Your task to perform on an android device: turn on sleep mode Image 0: 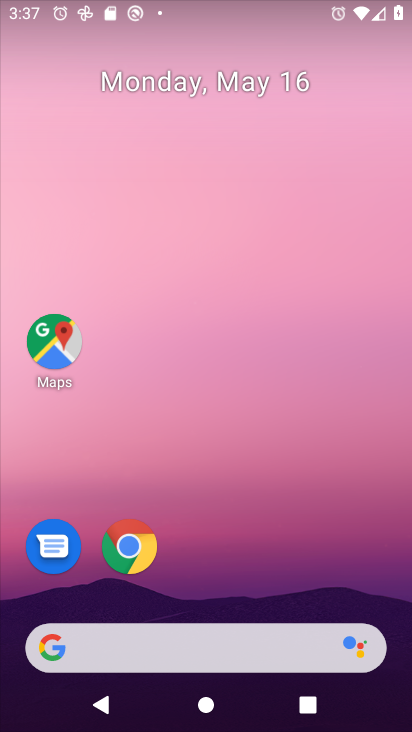
Step 0: drag from (348, 572) to (349, 143)
Your task to perform on an android device: turn on sleep mode Image 1: 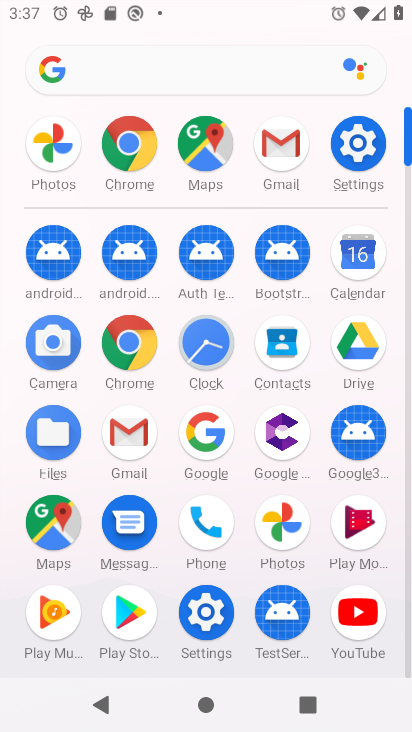
Step 1: click (370, 164)
Your task to perform on an android device: turn on sleep mode Image 2: 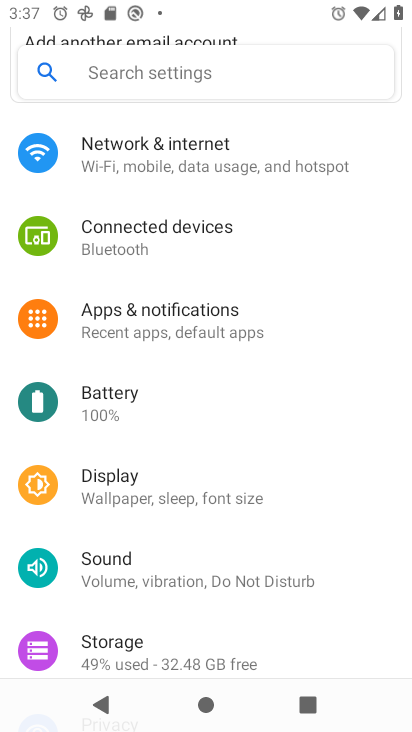
Step 2: drag from (343, 302) to (345, 458)
Your task to perform on an android device: turn on sleep mode Image 3: 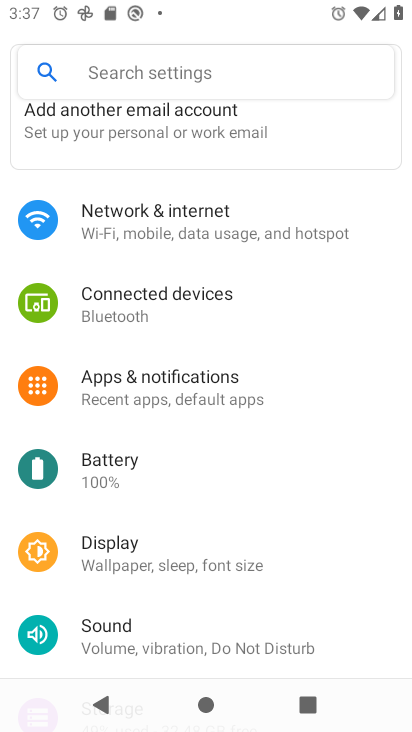
Step 3: drag from (352, 542) to (353, 427)
Your task to perform on an android device: turn on sleep mode Image 4: 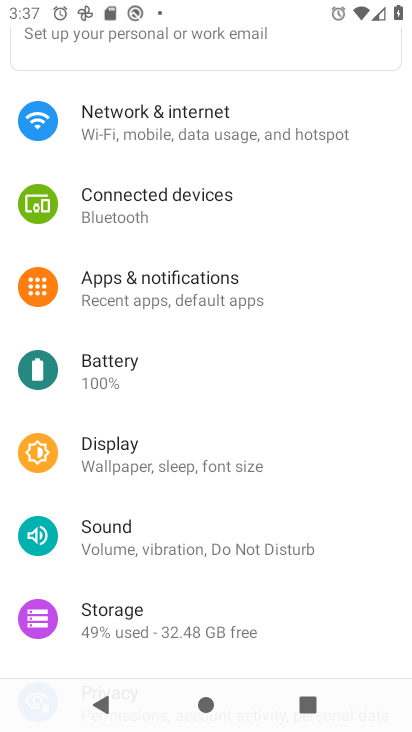
Step 4: drag from (346, 606) to (350, 446)
Your task to perform on an android device: turn on sleep mode Image 5: 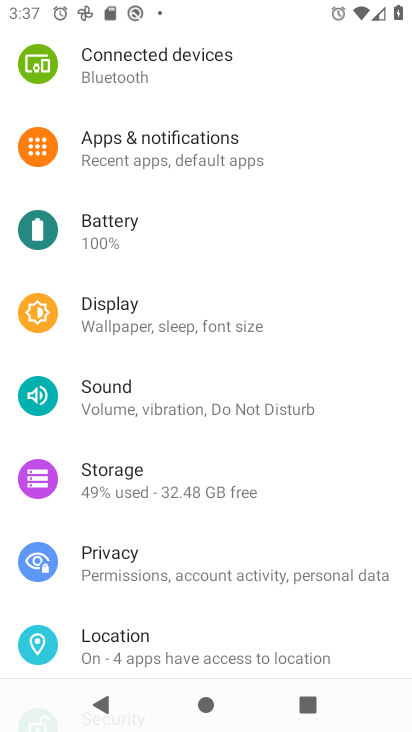
Step 5: drag from (337, 633) to (336, 455)
Your task to perform on an android device: turn on sleep mode Image 6: 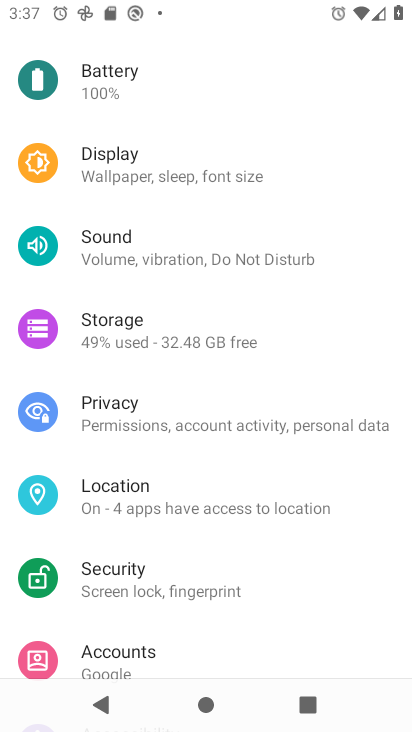
Step 6: drag from (341, 623) to (348, 456)
Your task to perform on an android device: turn on sleep mode Image 7: 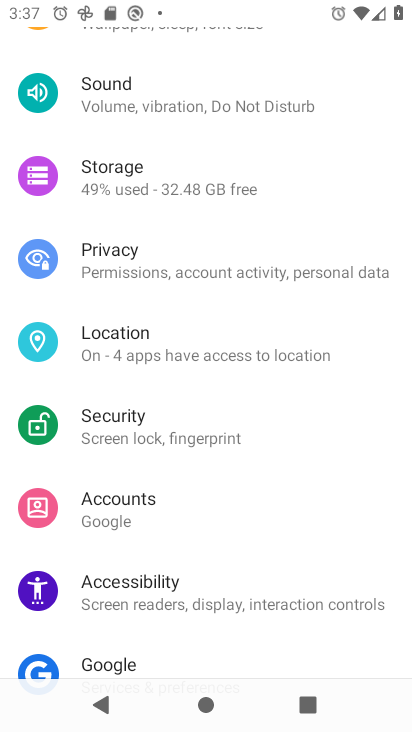
Step 7: drag from (346, 616) to (352, 488)
Your task to perform on an android device: turn on sleep mode Image 8: 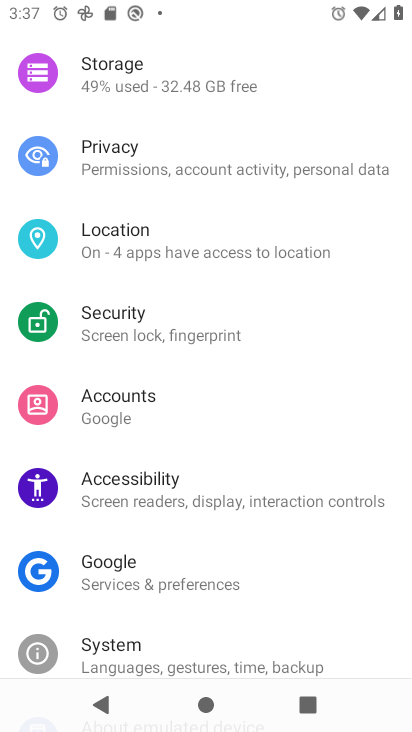
Step 8: drag from (330, 604) to (339, 470)
Your task to perform on an android device: turn on sleep mode Image 9: 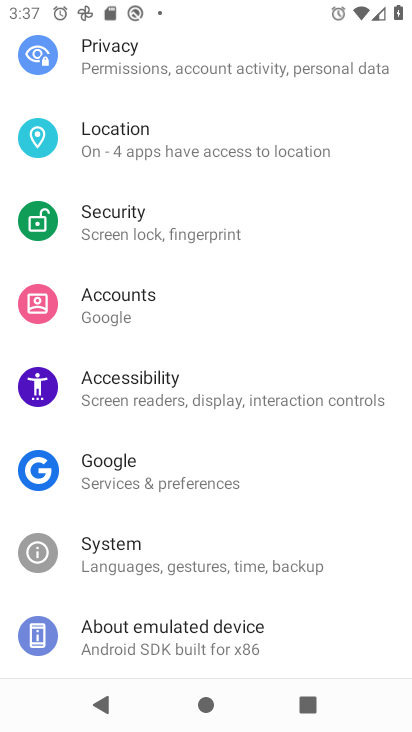
Step 9: drag from (339, 613) to (343, 487)
Your task to perform on an android device: turn on sleep mode Image 10: 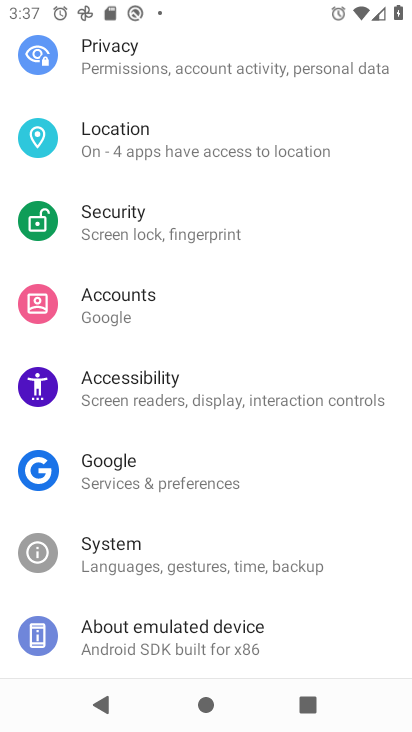
Step 10: drag from (355, 438) to (349, 560)
Your task to perform on an android device: turn on sleep mode Image 11: 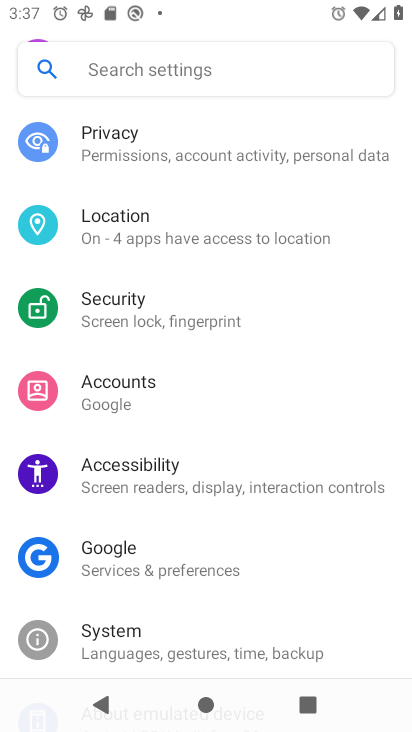
Step 11: drag from (363, 356) to (349, 520)
Your task to perform on an android device: turn on sleep mode Image 12: 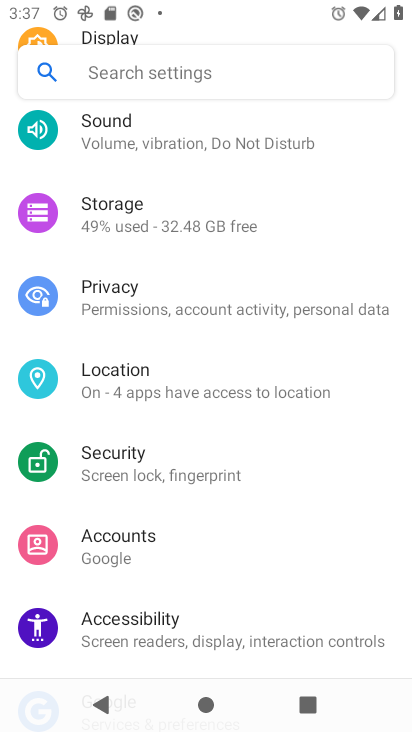
Step 12: drag from (358, 345) to (358, 466)
Your task to perform on an android device: turn on sleep mode Image 13: 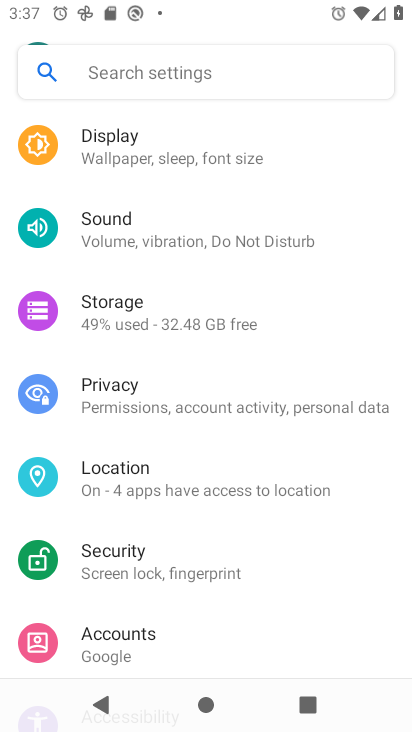
Step 13: drag from (372, 285) to (365, 419)
Your task to perform on an android device: turn on sleep mode Image 14: 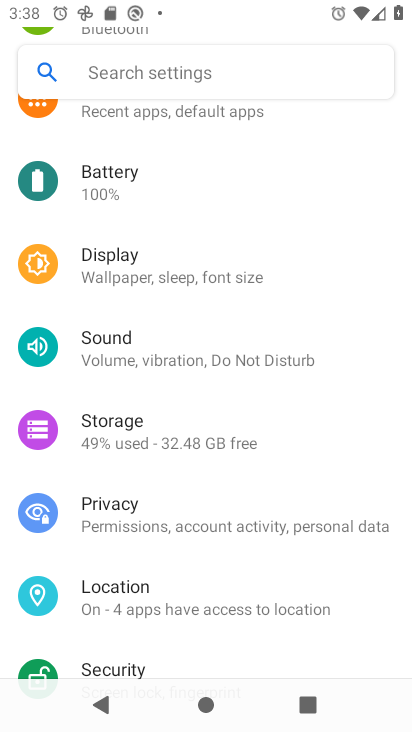
Step 14: drag from (357, 270) to (350, 416)
Your task to perform on an android device: turn on sleep mode Image 15: 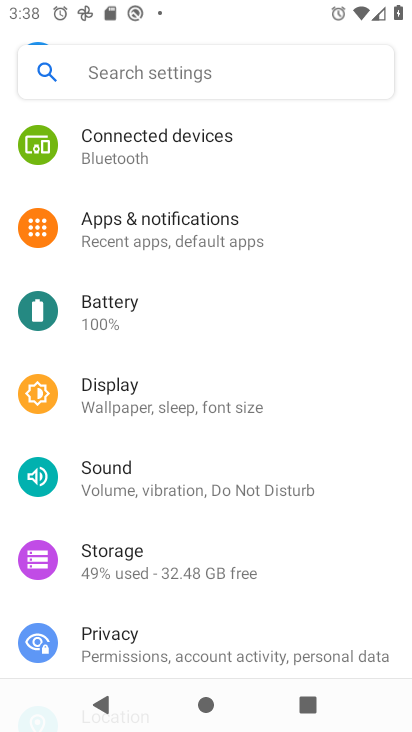
Step 15: drag from (351, 276) to (339, 418)
Your task to perform on an android device: turn on sleep mode Image 16: 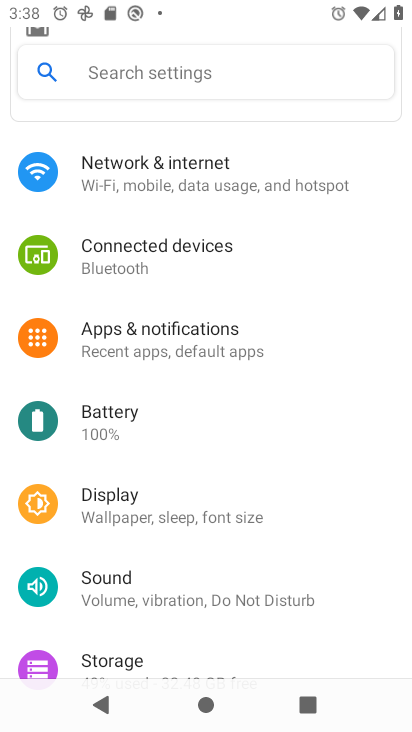
Step 16: click (249, 510)
Your task to perform on an android device: turn on sleep mode Image 17: 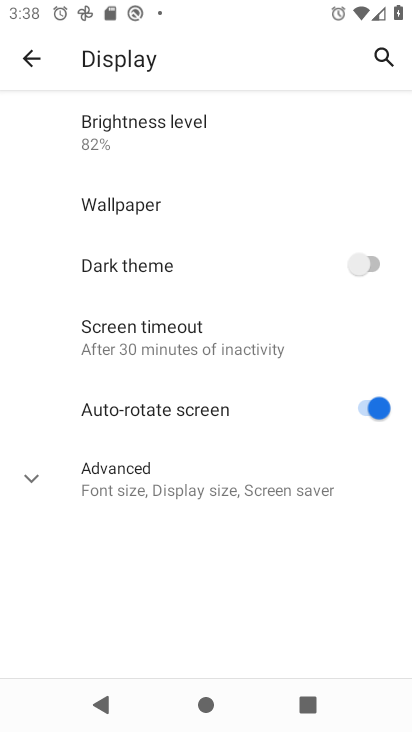
Step 17: click (254, 501)
Your task to perform on an android device: turn on sleep mode Image 18: 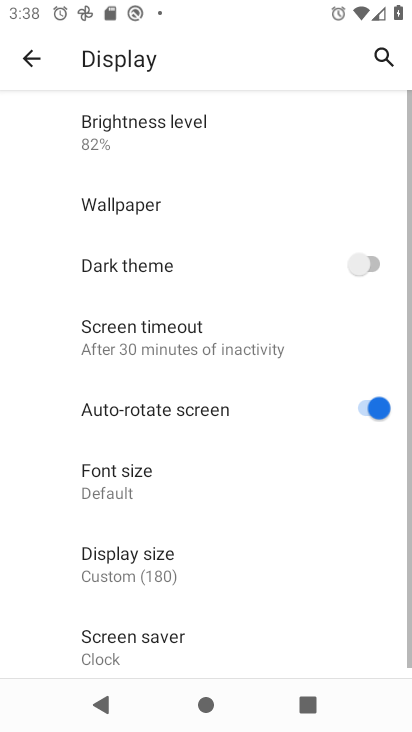
Step 18: task complete